Your task to perform on an android device: Go to display settings Image 0: 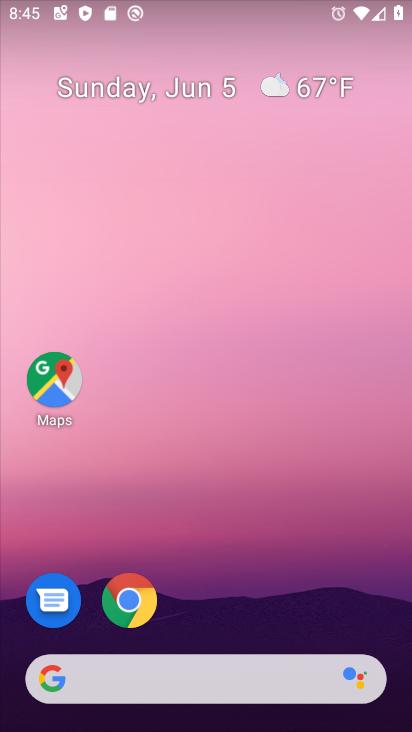
Step 0: drag from (388, 614) to (279, 82)
Your task to perform on an android device: Go to display settings Image 1: 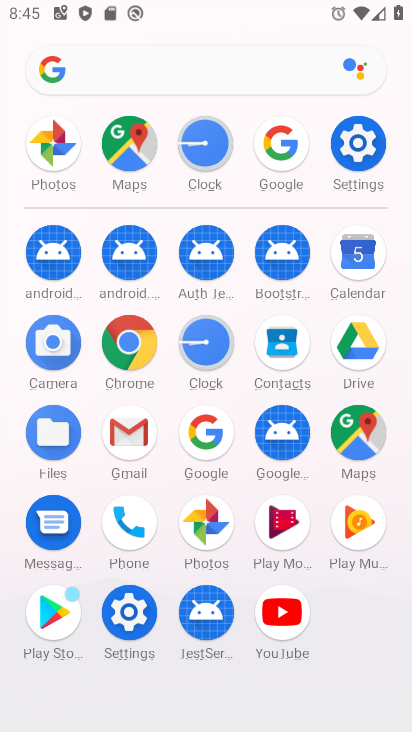
Step 1: click (353, 123)
Your task to perform on an android device: Go to display settings Image 2: 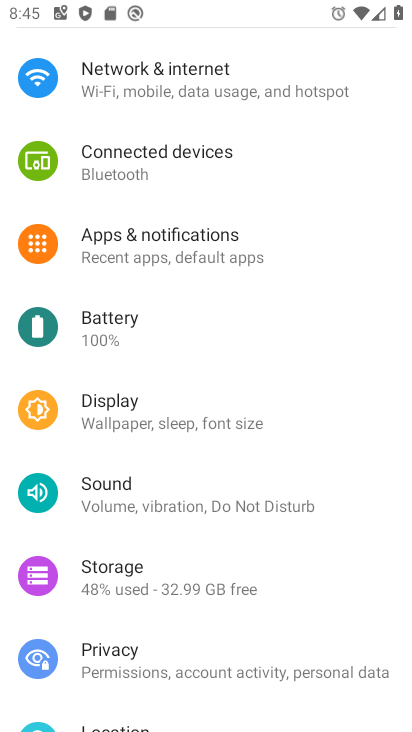
Step 2: click (134, 408)
Your task to perform on an android device: Go to display settings Image 3: 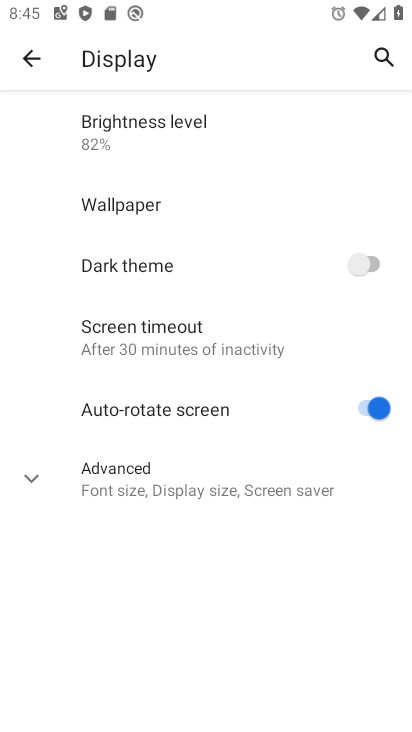
Step 3: task complete